Your task to perform on an android device: delete a single message in the gmail app Image 0: 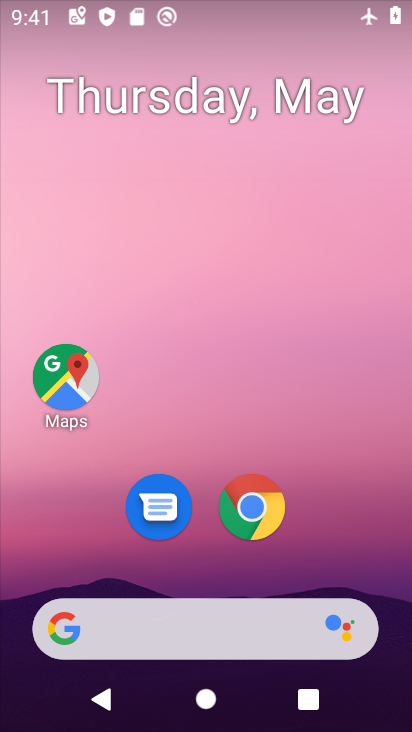
Step 0: drag from (231, 663) to (286, 135)
Your task to perform on an android device: delete a single message in the gmail app Image 1: 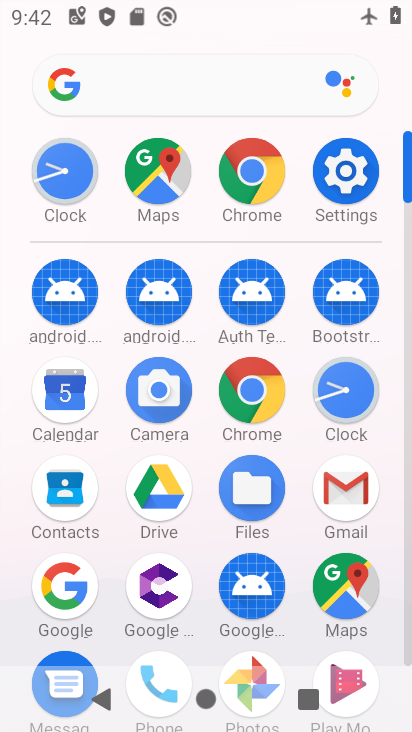
Step 1: click (331, 503)
Your task to perform on an android device: delete a single message in the gmail app Image 2: 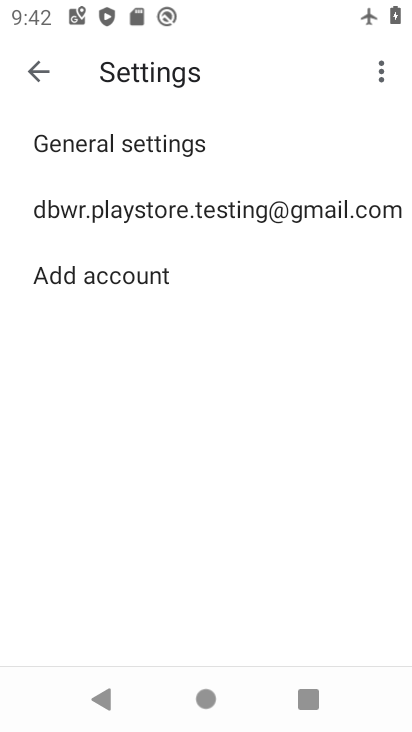
Step 2: click (42, 74)
Your task to perform on an android device: delete a single message in the gmail app Image 3: 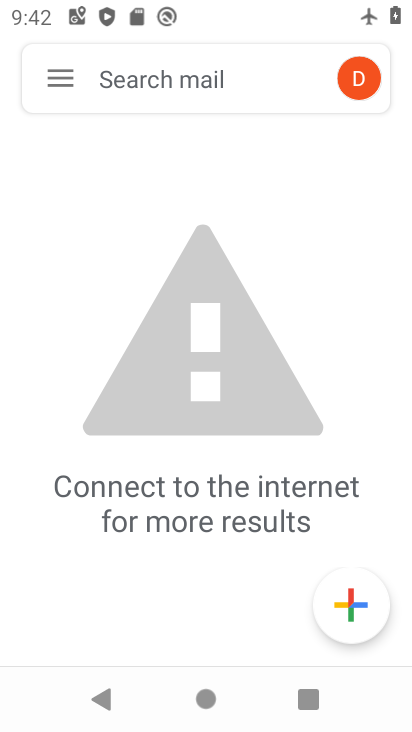
Step 3: click (67, 89)
Your task to perform on an android device: delete a single message in the gmail app Image 4: 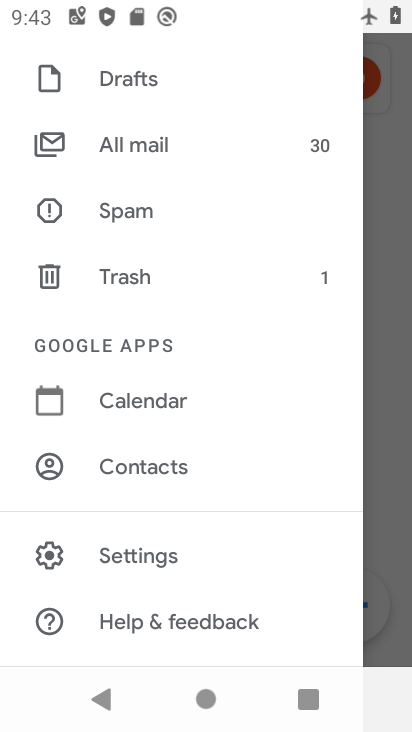
Step 4: click (184, 137)
Your task to perform on an android device: delete a single message in the gmail app Image 5: 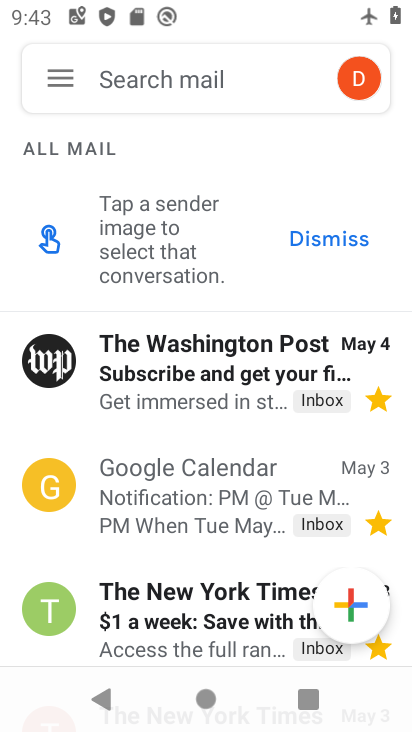
Step 5: drag from (214, 520) to (208, 292)
Your task to perform on an android device: delete a single message in the gmail app Image 6: 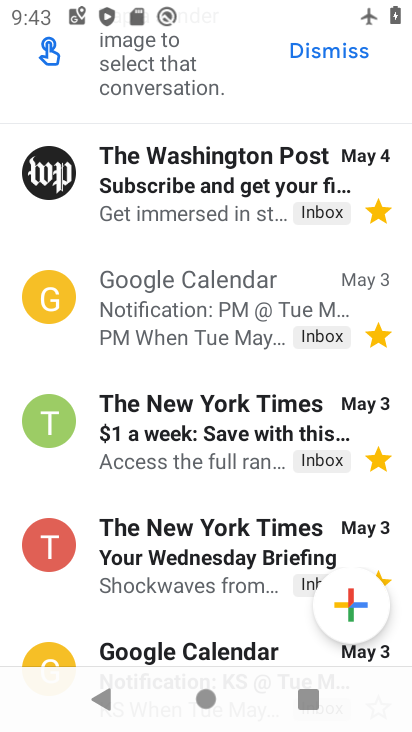
Step 6: click (187, 410)
Your task to perform on an android device: delete a single message in the gmail app Image 7: 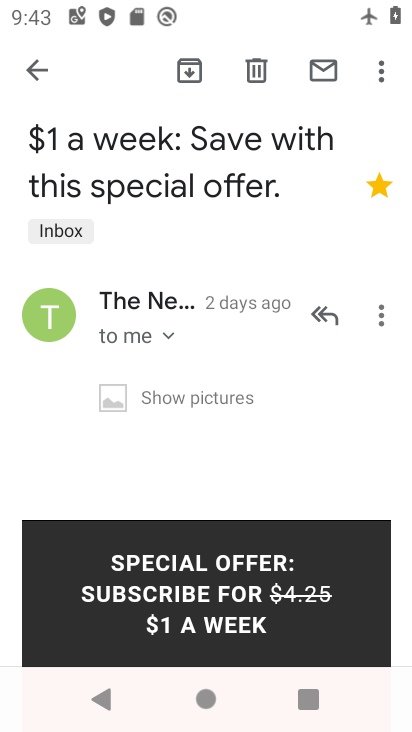
Step 7: click (239, 72)
Your task to perform on an android device: delete a single message in the gmail app Image 8: 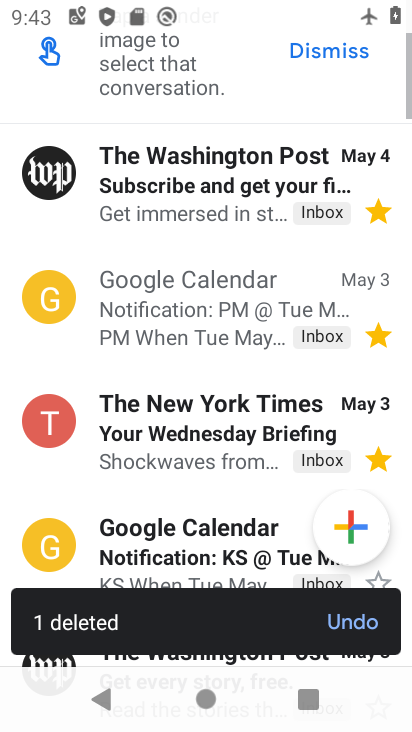
Step 8: task complete